Your task to perform on an android device: turn on improve location accuracy Image 0: 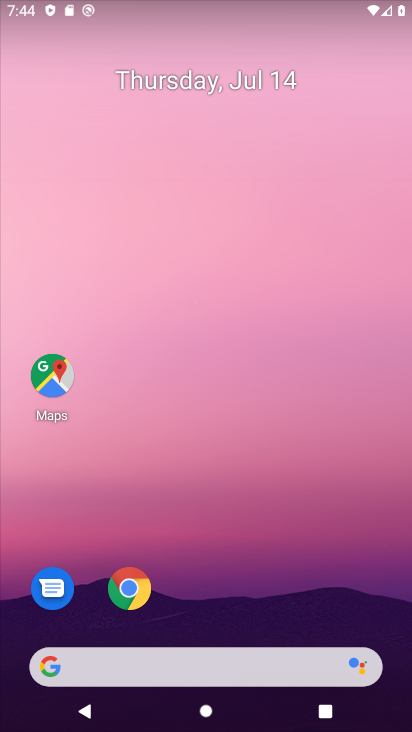
Step 0: drag from (315, 596) to (252, 104)
Your task to perform on an android device: turn on improve location accuracy Image 1: 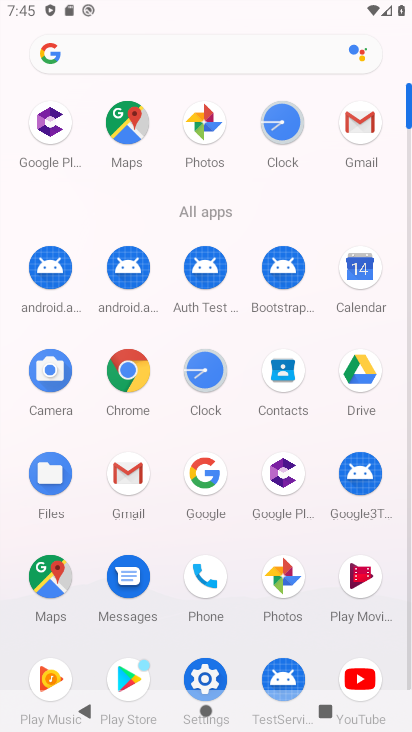
Step 1: click (203, 673)
Your task to perform on an android device: turn on improve location accuracy Image 2: 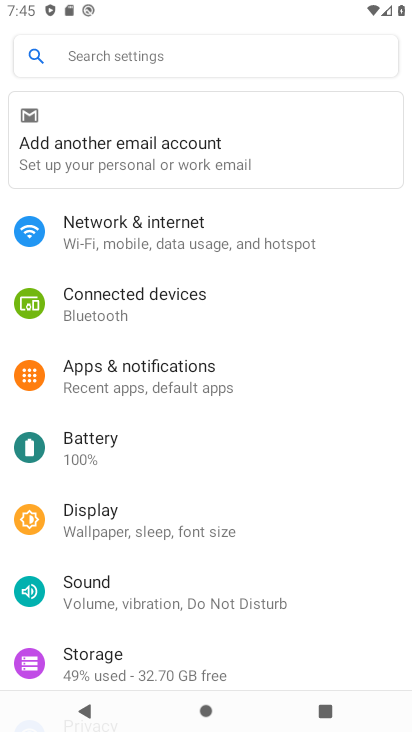
Step 2: drag from (244, 571) to (242, 110)
Your task to perform on an android device: turn on improve location accuracy Image 3: 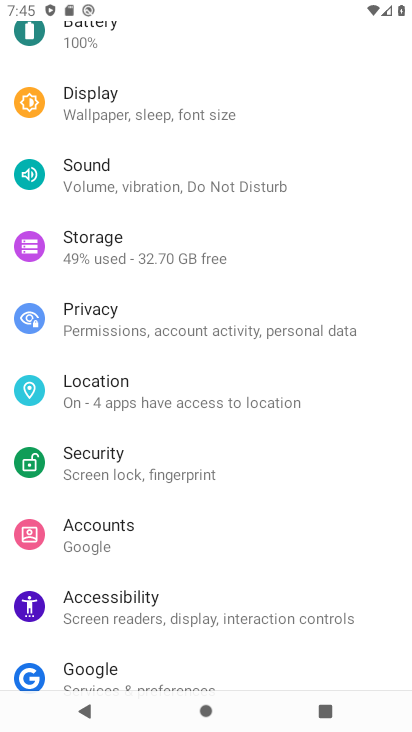
Step 3: click (141, 410)
Your task to perform on an android device: turn on improve location accuracy Image 4: 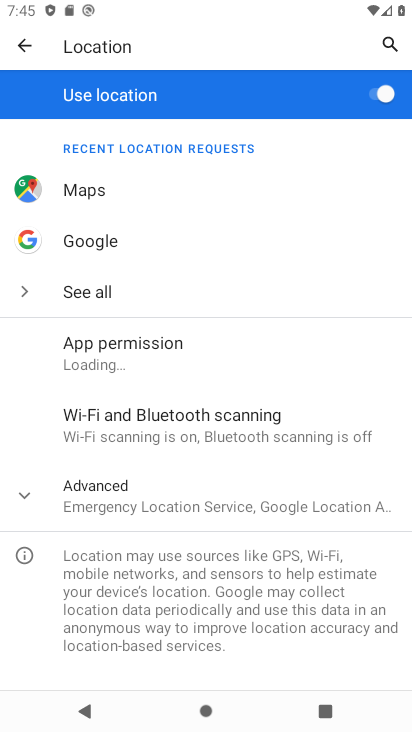
Step 4: click (128, 483)
Your task to perform on an android device: turn on improve location accuracy Image 5: 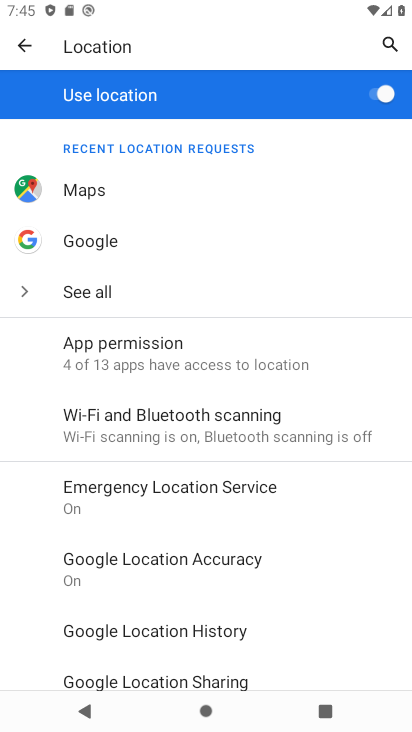
Step 5: click (236, 558)
Your task to perform on an android device: turn on improve location accuracy Image 6: 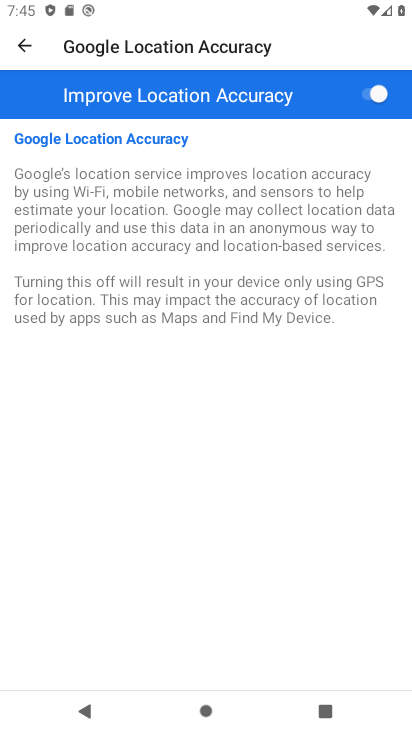
Step 6: task complete